Your task to perform on an android device: Play the last video I watched on Youtube Image 0: 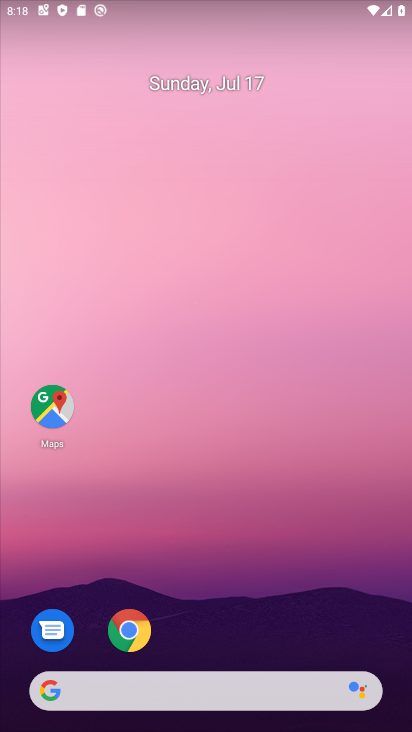
Step 0: drag from (318, 596) to (321, 99)
Your task to perform on an android device: Play the last video I watched on Youtube Image 1: 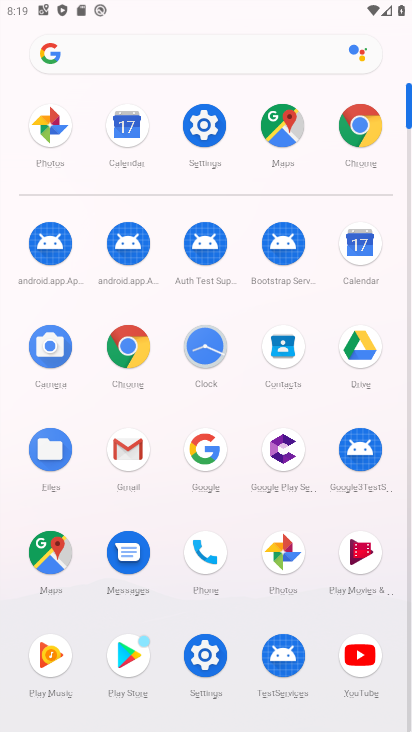
Step 1: click (365, 657)
Your task to perform on an android device: Play the last video I watched on Youtube Image 2: 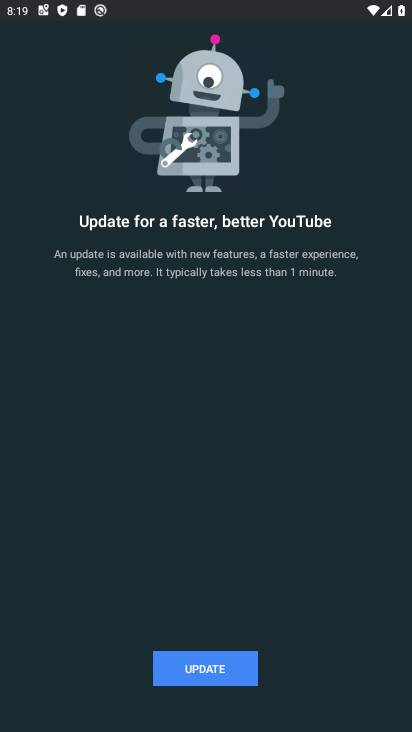
Step 2: click (220, 673)
Your task to perform on an android device: Play the last video I watched on Youtube Image 3: 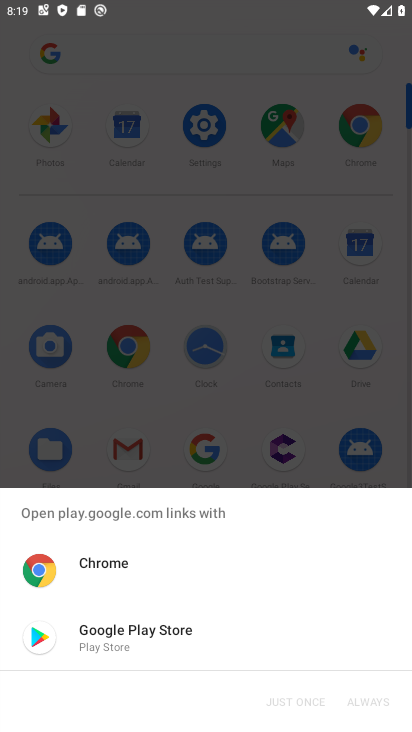
Step 3: click (141, 642)
Your task to perform on an android device: Play the last video I watched on Youtube Image 4: 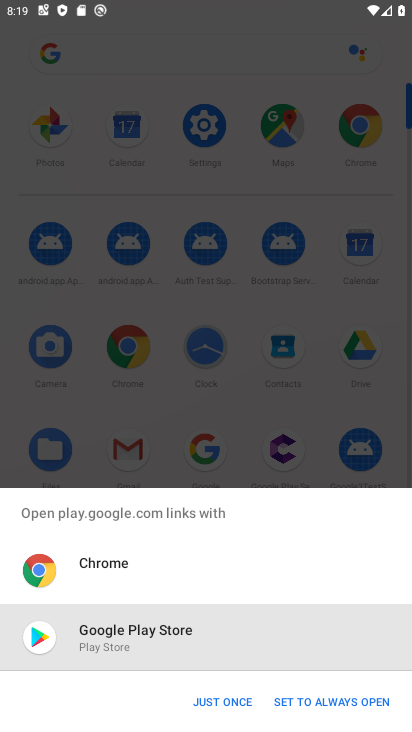
Step 4: click (212, 702)
Your task to perform on an android device: Play the last video I watched on Youtube Image 5: 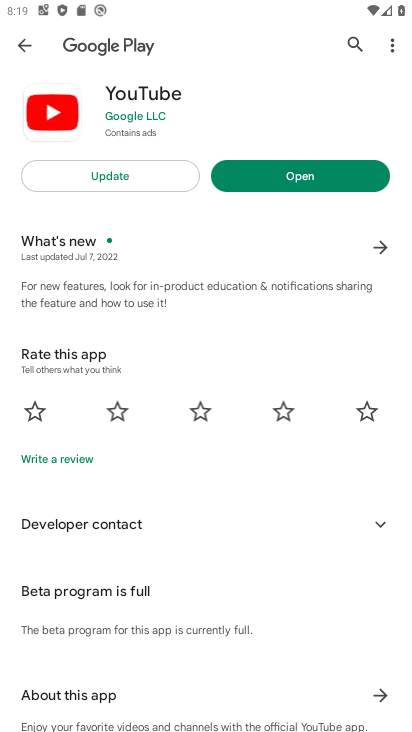
Step 5: click (161, 175)
Your task to perform on an android device: Play the last video I watched on Youtube Image 6: 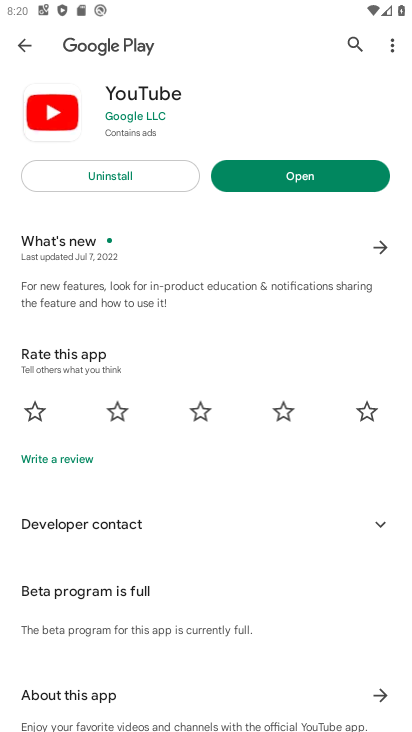
Step 6: click (331, 171)
Your task to perform on an android device: Play the last video I watched on Youtube Image 7: 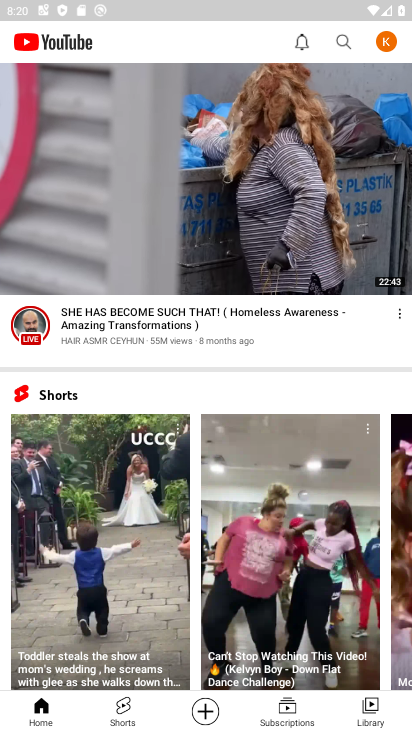
Step 7: click (370, 715)
Your task to perform on an android device: Play the last video I watched on Youtube Image 8: 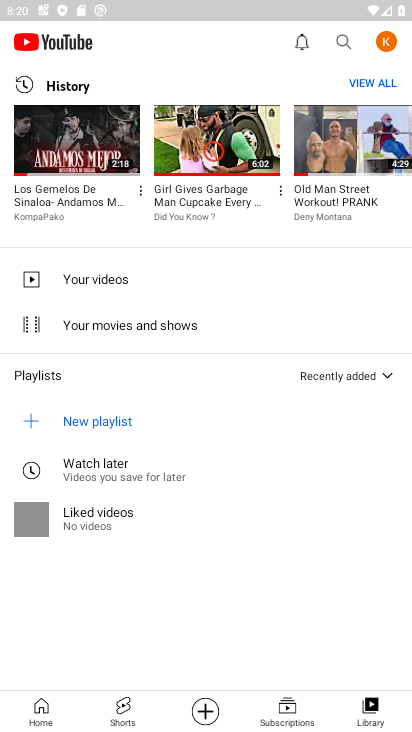
Step 8: click (62, 135)
Your task to perform on an android device: Play the last video I watched on Youtube Image 9: 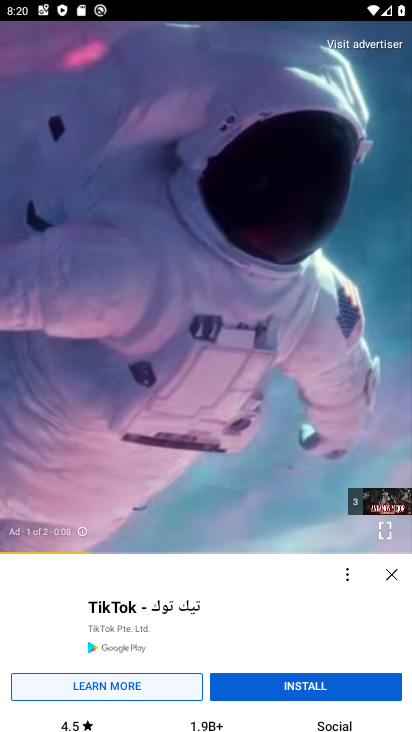
Step 9: task complete